Your task to perform on an android device: turn off translation in the chrome app Image 0: 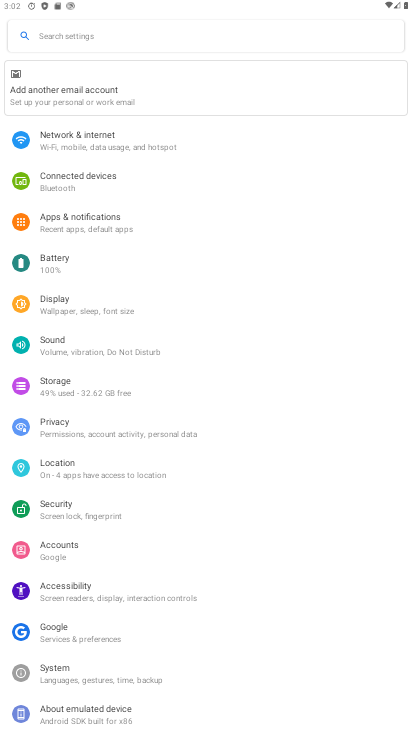
Step 0: press home button
Your task to perform on an android device: turn off translation in the chrome app Image 1: 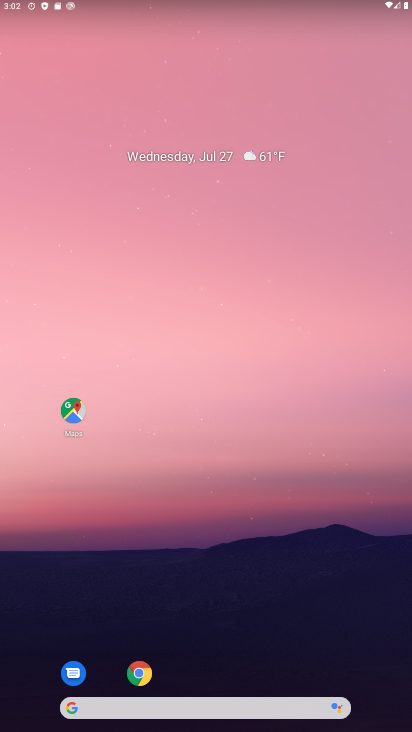
Step 1: click (132, 678)
Your task to perform on an android device: turn off translation in the chrome app Image 2: 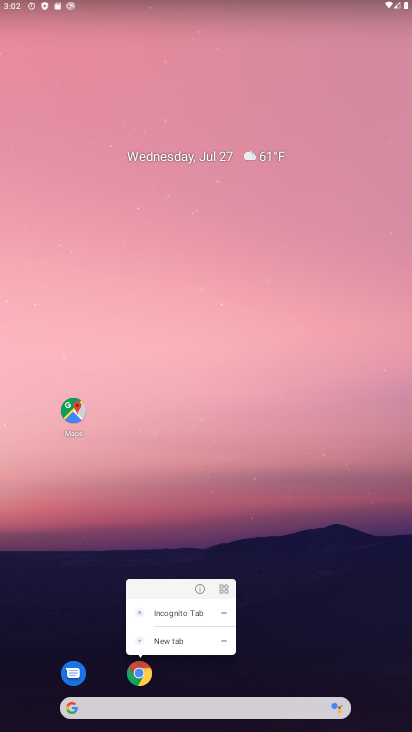
Step 2: click (137, 664)
Your task to perform on an android device: turn off translation in the chrome app Image 3: 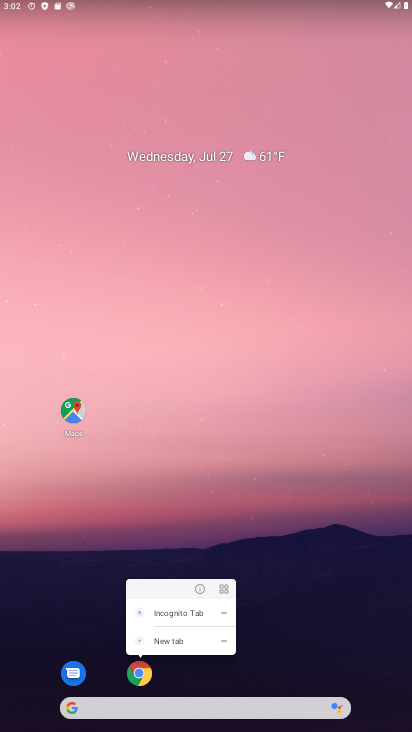
Step 3: click (137, 675)
Your task to perform on an android device: turn off translation in the chrome app Image 4: 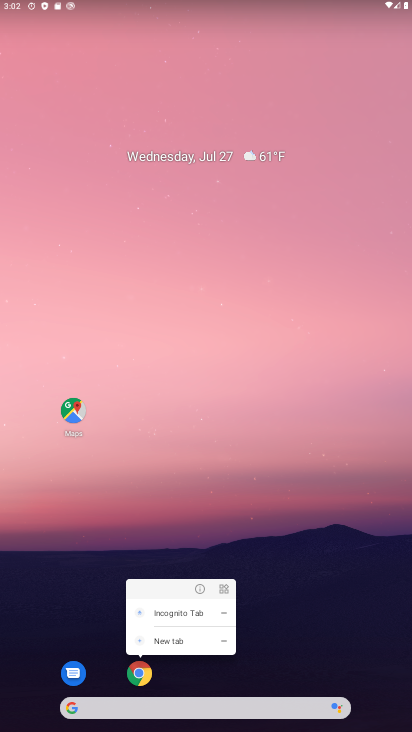
Step 4: click (137, 675)
Your task to perform on an android device: turn off translation in the chrome app Image 5: 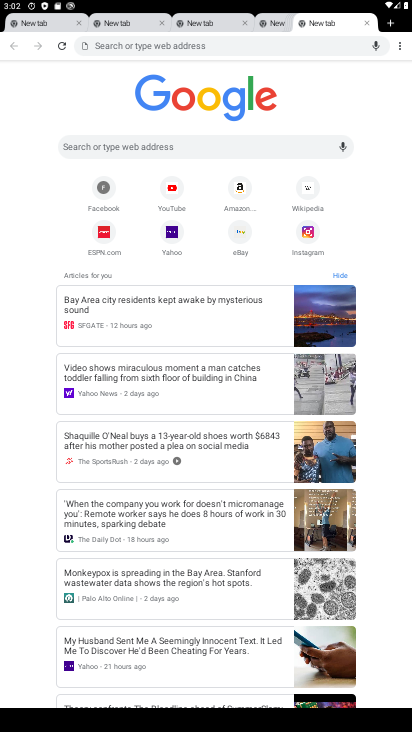
Step 5: click (397, 46)
Your task to perform on an android device: turn off translation in the chrome app Image 6: 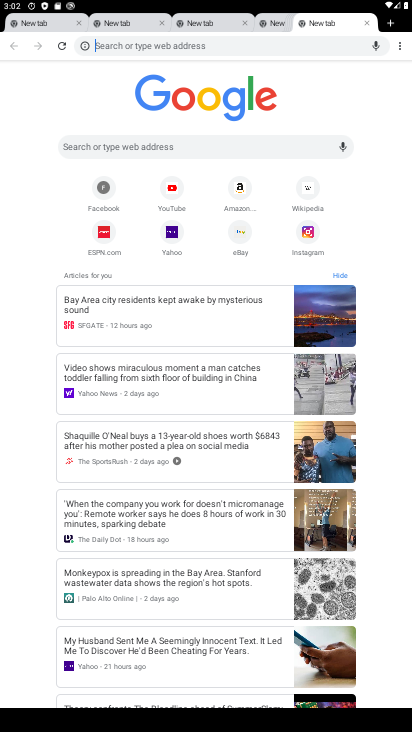
Step 6: click (399, 40)
Your task to perform on an android device: turn off translation in the chrome app Image 7: 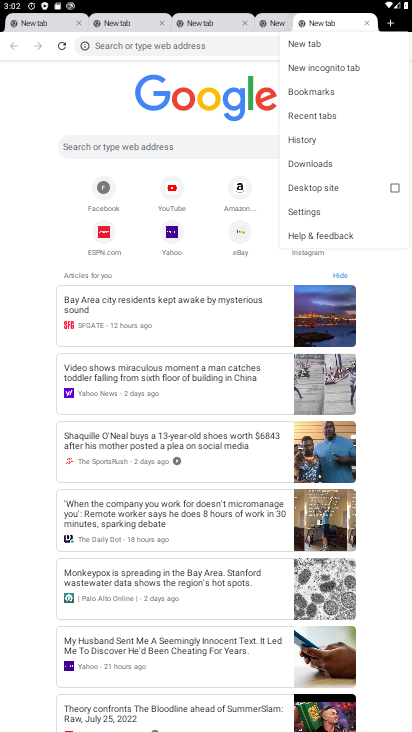
Step 7: click (318, 205)
Your task to perform on an android device: turn off translation in the chrome app Image 8: 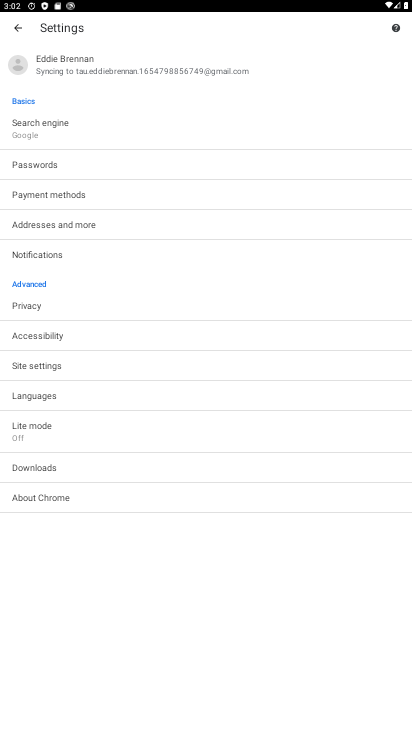
Step 8: click (34, 395)
Your task to perform on an android device: turn off translation in the chrome app Image 9: 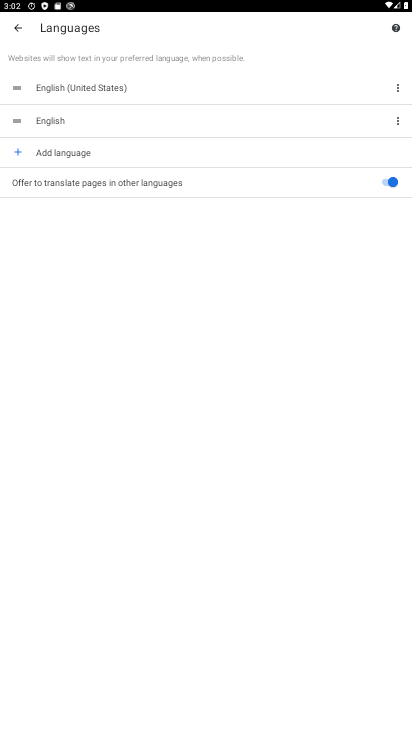
Step 9: task complete